Your task to perform on an android device: turn off translation in the chrome app Image 0: 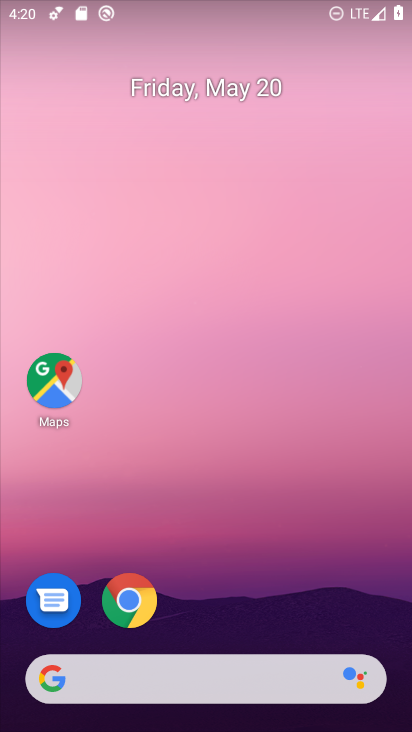
Step 0: click (122, 593)
Your task to perform on an android device: turn off translation in the chrome app Image 1: 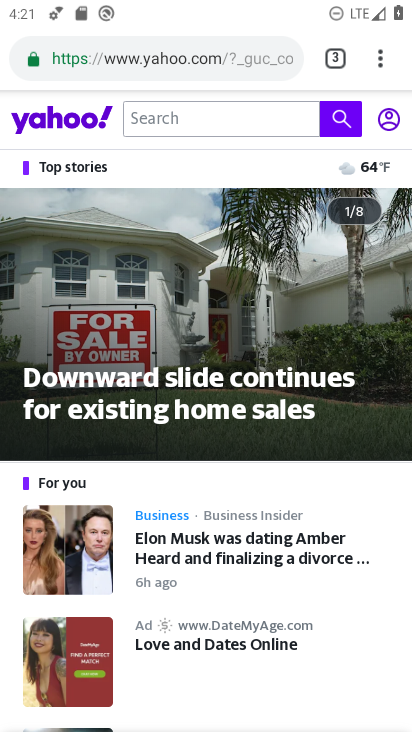
Step 1: drag from (384, 50) to (203, 628)
Your task to perform on an android device: turn off translation in the chrome app Image 2: 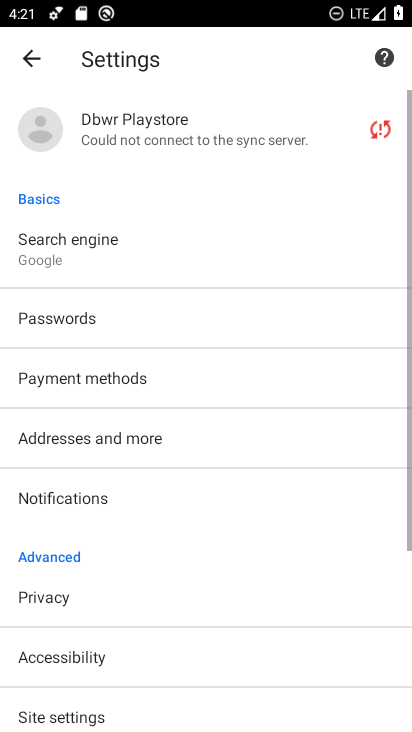
Step 2: drag from (183, 630) to (226, 149)
Your task to perform on an android device: turn off translation in the chrome app Image 3: 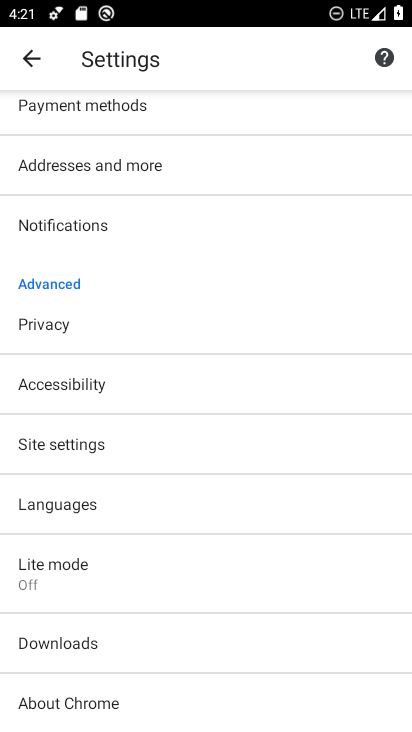
Step 3: click (81, 504)
Your task to perform on an android device: turn off translation in the chrome app Image 4: 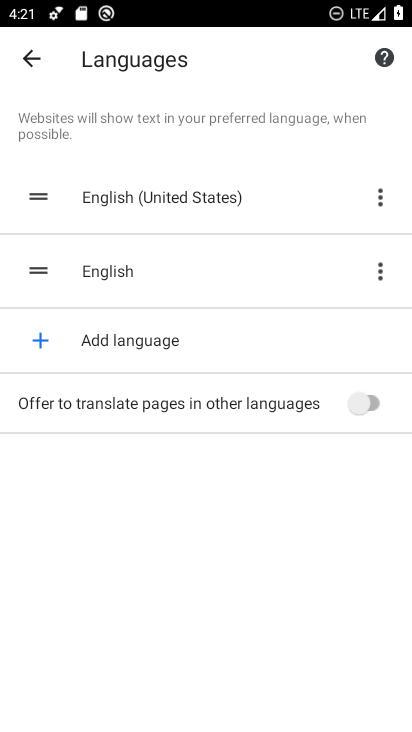
Step 4: task complete